Your task to perform on an android device: turn on wifi Image 0: 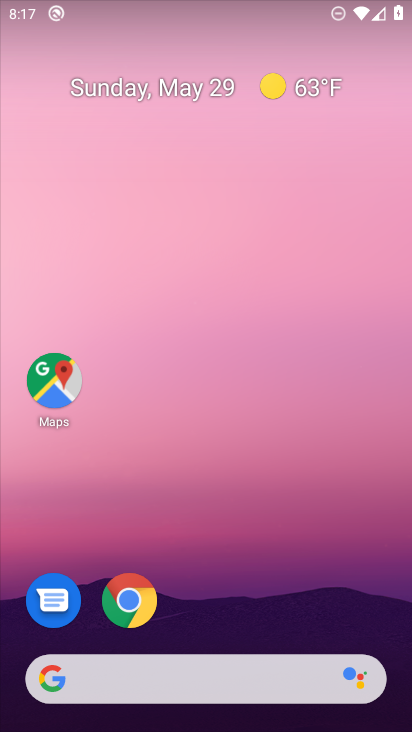
Step 0: drag from (192, 6) to (146, 560)
Your task to perform on an android device: turn on wifi Image 1: 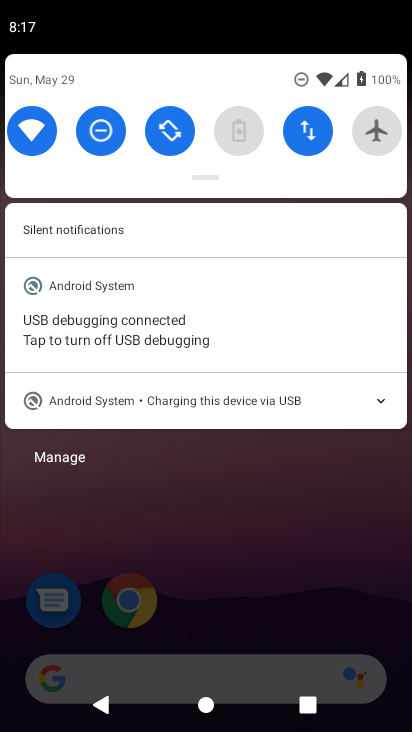
Step 1: task complete